Your task to perform on an android device: check google app version Image 0: 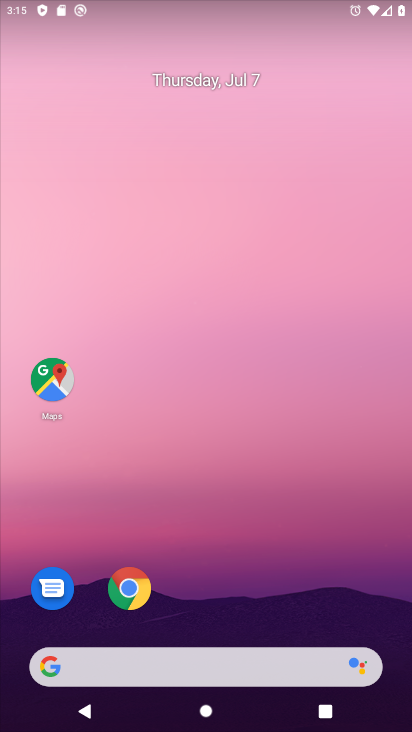
Step 0: drag from (151, 555) to (145, 223)
Your task to perform on an android device: check google app version Image 1: 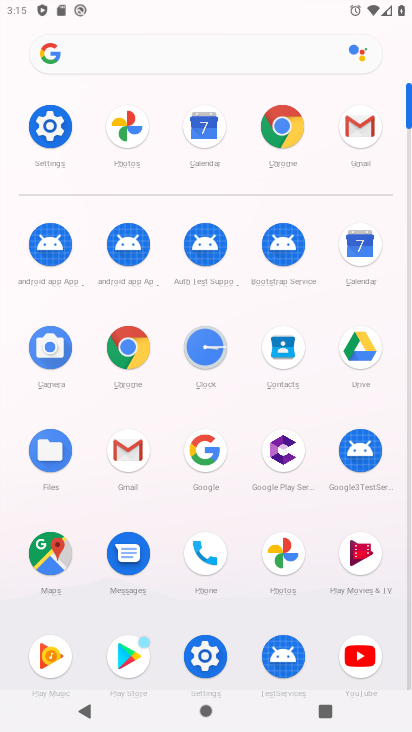
Step 1: click (192, 456)
Your task to perform on an android device: check google app version Image 2: 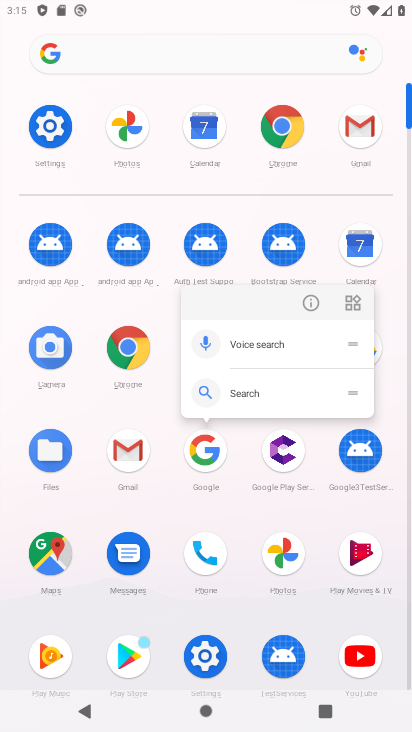
Step 2: click (307, 297)
Your task to perform on an android device: check google app version Image 3: 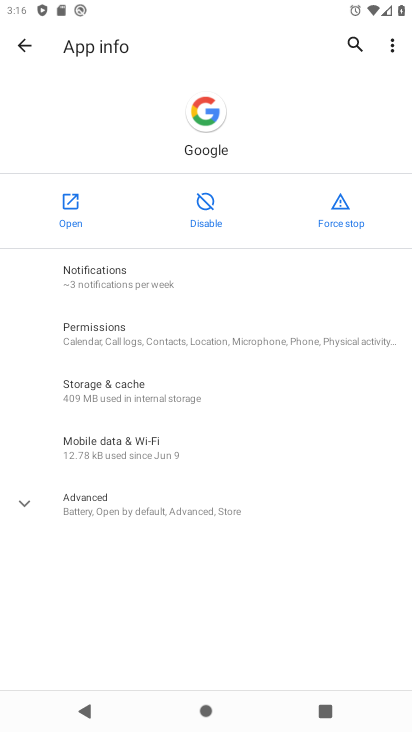
Step 3: click (51, 502)
Your task to perform on an android device: check google app version Image 4: 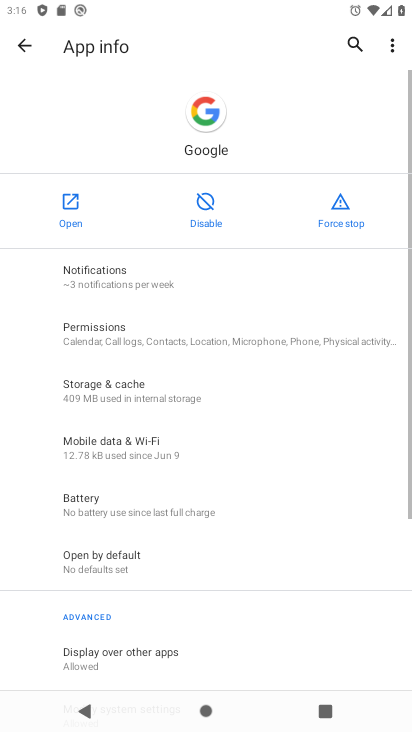
Step 4: task complete